Your task to perform on an android device: all mails in gmail Image 0: 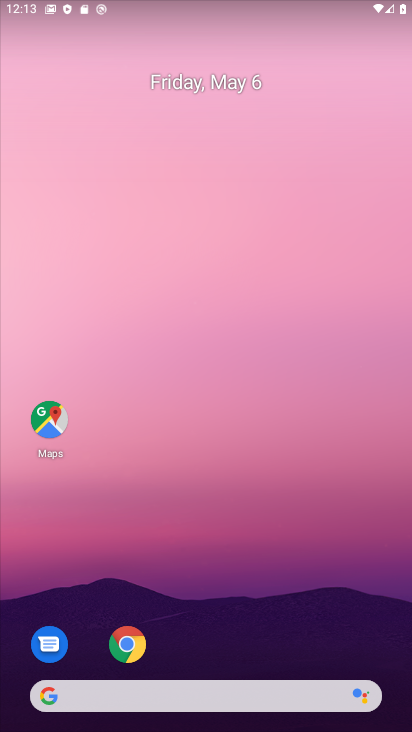
Step 0: drag from (244, 712) to (329, 3)
Your task to perform on an android device: all mails in gmail Image 1: 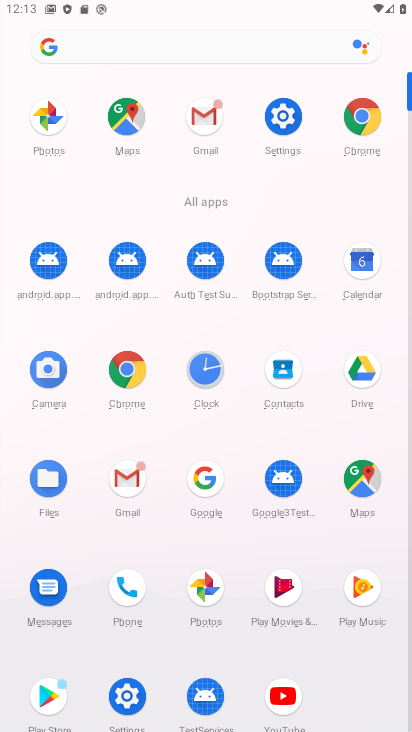
Step 1: click (201, 119)
Your task to perform on an android device: all mails in gmail Image 2: 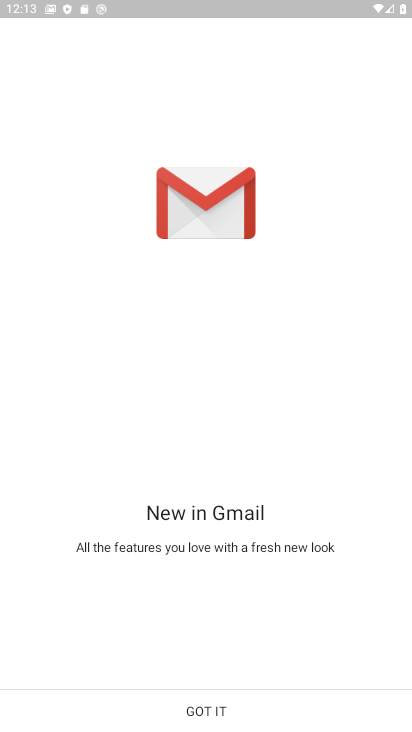
Step 2: click (230, 714)
Your task to perform on an android device: all mails in gmail Image 3: 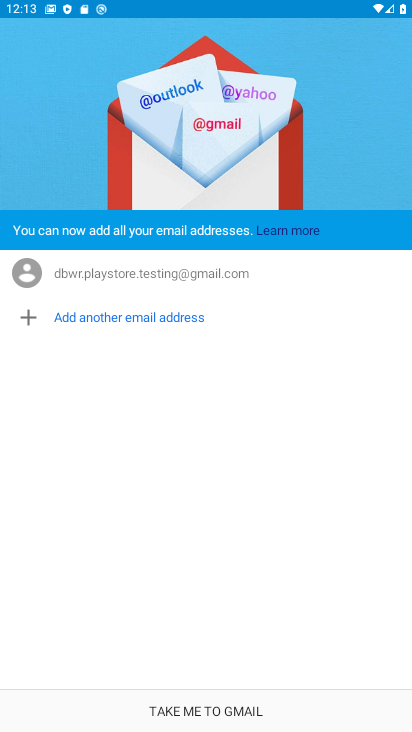
Step 3: click (228, 705)
Your task to perform on an android device: all mails in gmail Image 4: 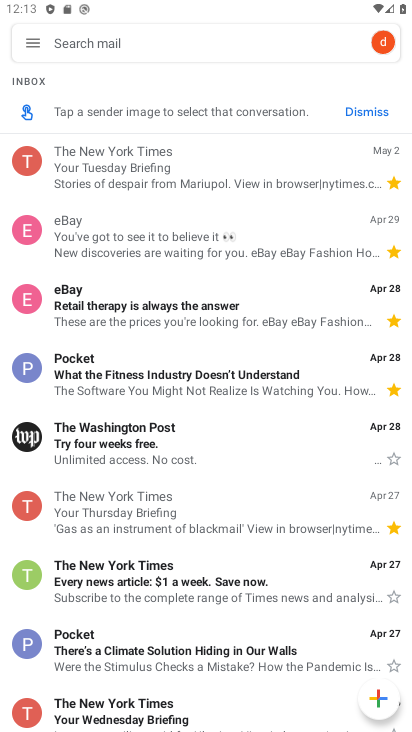
Step 4: click (22, 37)
Your task to perform on an android device: all mails in gmail Image 5: 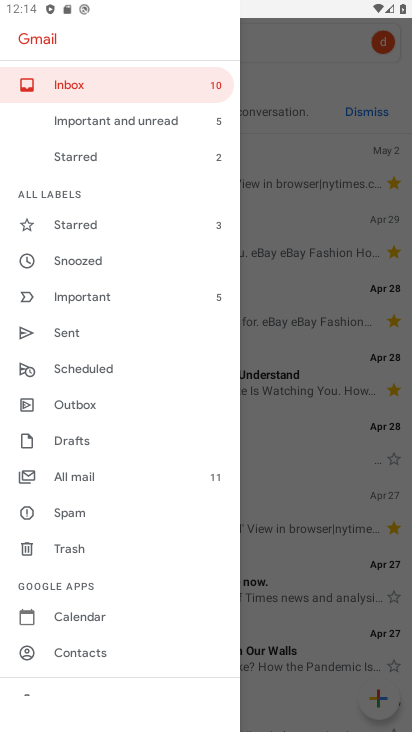
Step 5: click (94, 479)
Your task to perform on an android device: all mails in gmail Image 6: 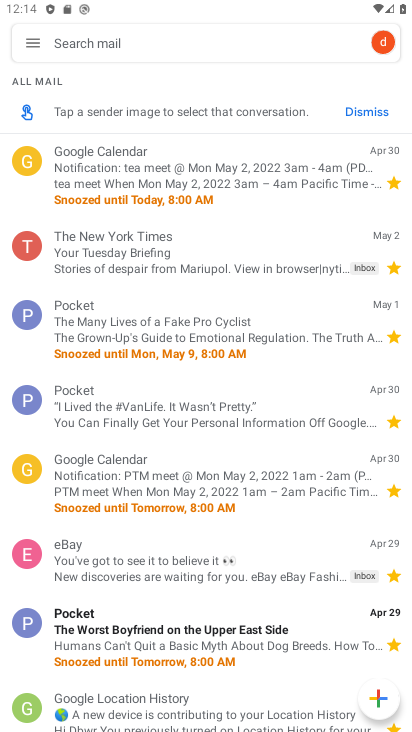
Step 6: task complete